Your task to perform on an android device: Go to Yahoo.com Image 0: 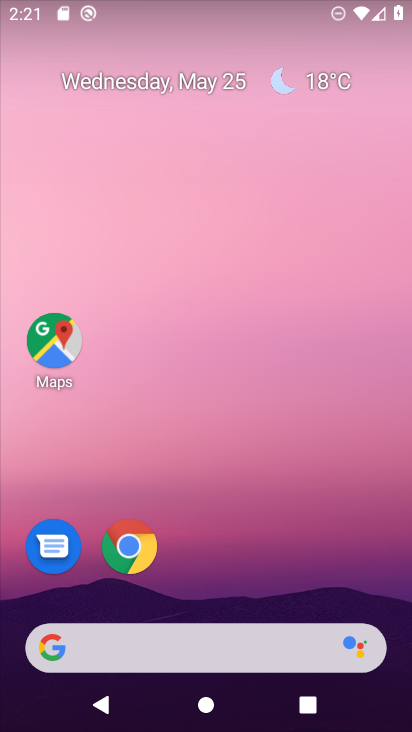
Step 0: drag from (175, 618) to (148, 0)
Your task to perform on an android device: Go to Yahoo.com Image 1: 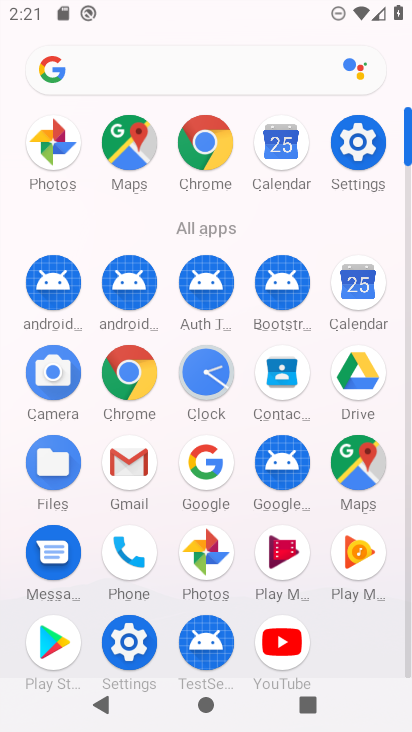
Step 1: click (137, 384)
Your task to perform on an android device: Go to Yahoo.com Image 2: 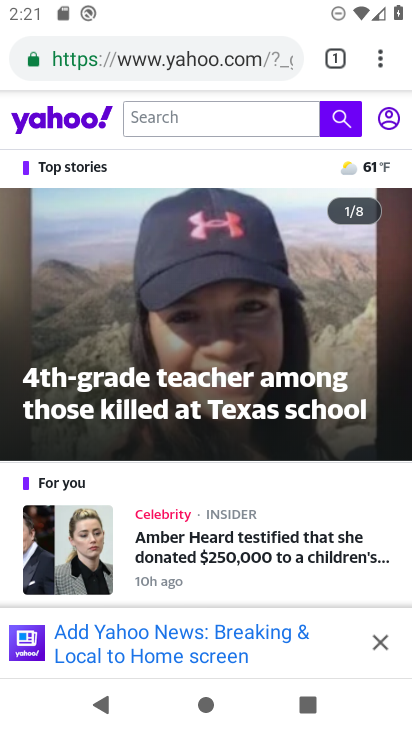
Step 2: task complete